Your task to perform on an android device: Is it going to rain tomorrow? Image 0: 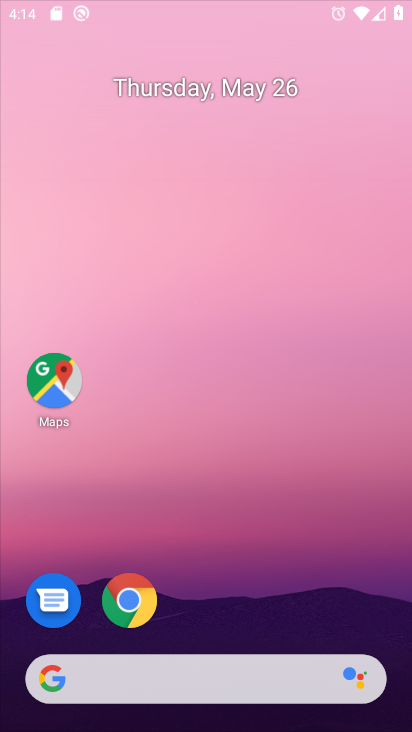
Step 0: drag from (187, 643) to (288, 41)
Your task to perform on an android device: Is it going to rain tomorrow? Image 1: 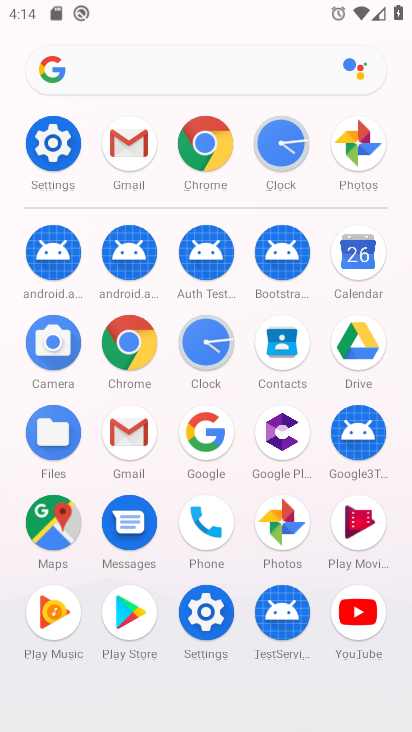
Step 1: click (198, 71)
Your task to perform on an android device: Is it going to rain tomorrow? Image 2: 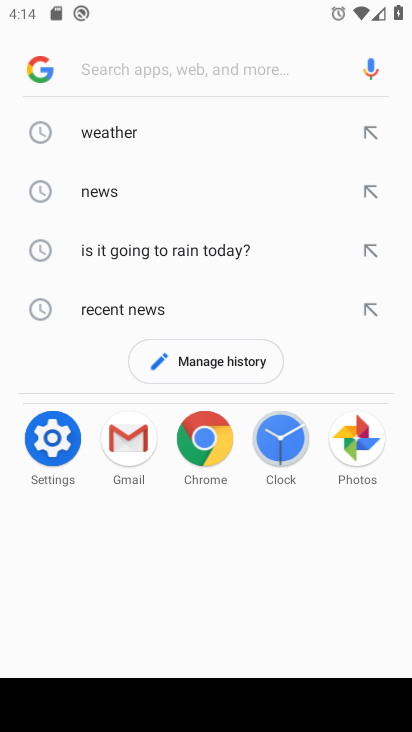
Step 2: click (157, 140)
Your task to perform on an android device: Is it going to rain tomorrow? Image 3: 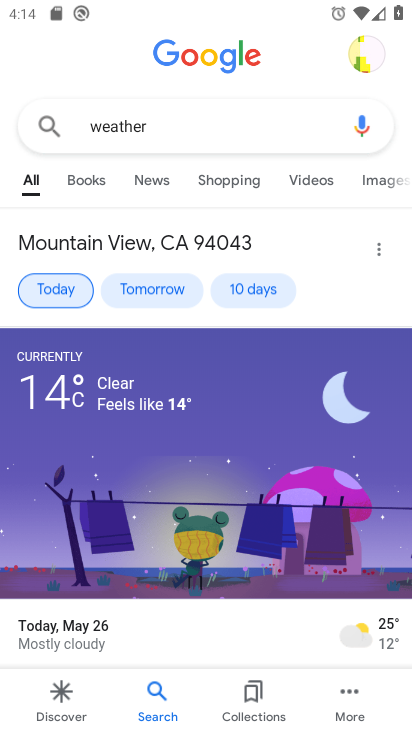
Step 3: click (135, 285)
Your task to perform on an android device: Is it going to rain tomorrow? Image 4: 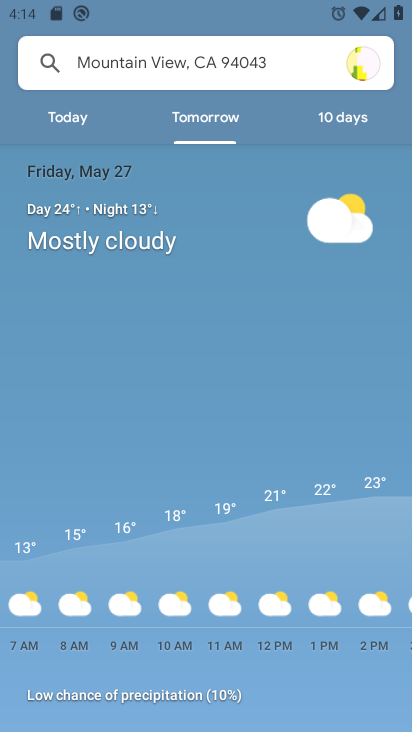
Step 4: task complete